Your task to perform on an android device: open device folders in google photos Image 0: 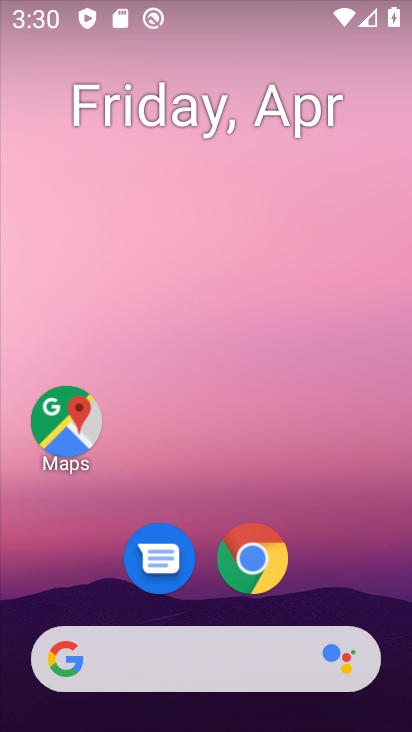
Step 0: drag from (307, 560) to (229, 99)
Your task to perform on an android device: open device folders in google photos Image 1: 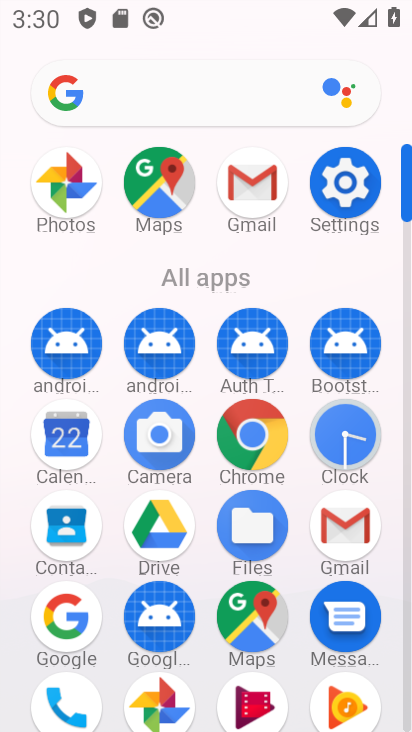
Step 1: click (72, 211)
Your task to perform on an android device: open device folders in google photos Image 2: 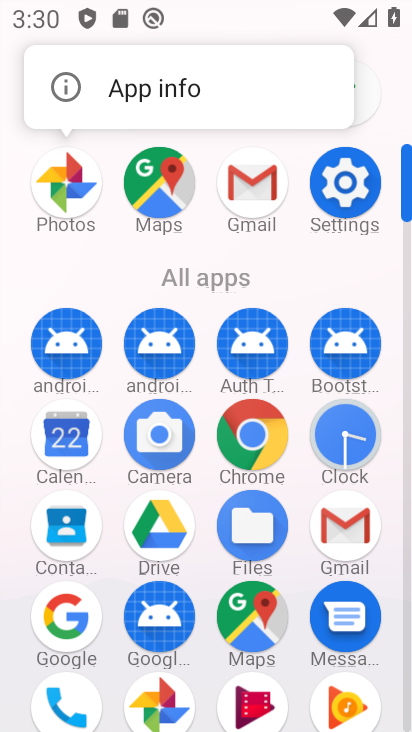
Step 2: click (63, 191)
Your task to perform on an android device: open device folders in google photos Image 3: 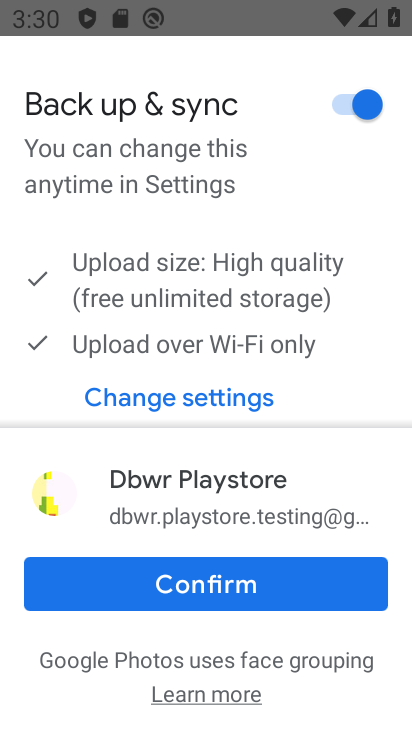
Step 3: click (212, 594)
Your task to perform on an android device: open device folders in google photos Image 4: 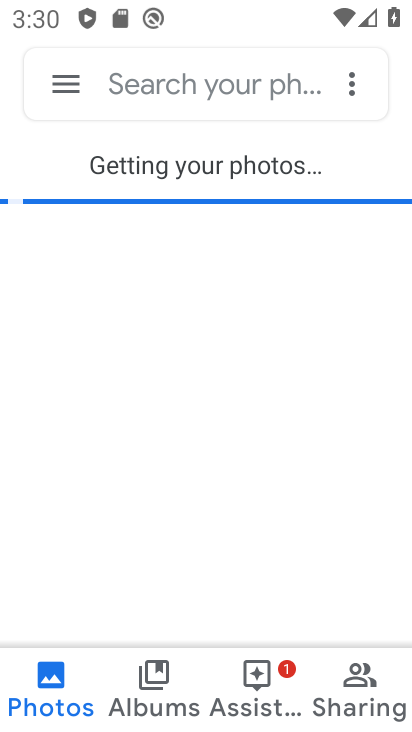
Step 4: click (67, 93)
Your task to perform on an android device: open device folders in google photos Image 5: 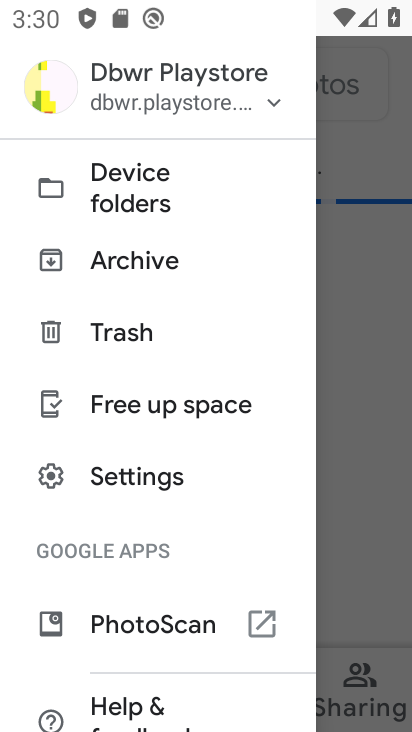
Step 5: click (120, 202)
Your task to perform on an android device: open device folders in google photos Image 6: 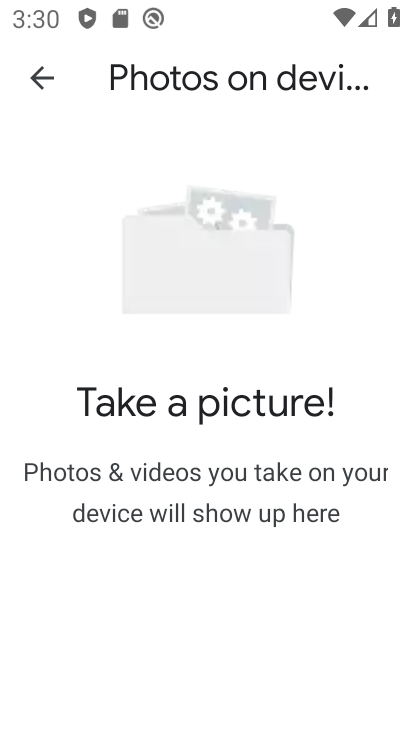
Step 6: task complete